Your task to perform on an android device: add a label to a message in the gmail app Image 0: 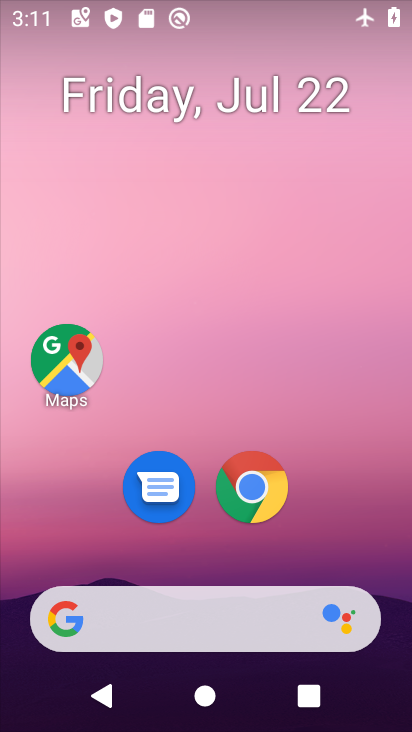
Step 0: drag from (107, 554) to (157, 53)
Your task to perform on an android device: add a label to a message in the gmail app Image 1: 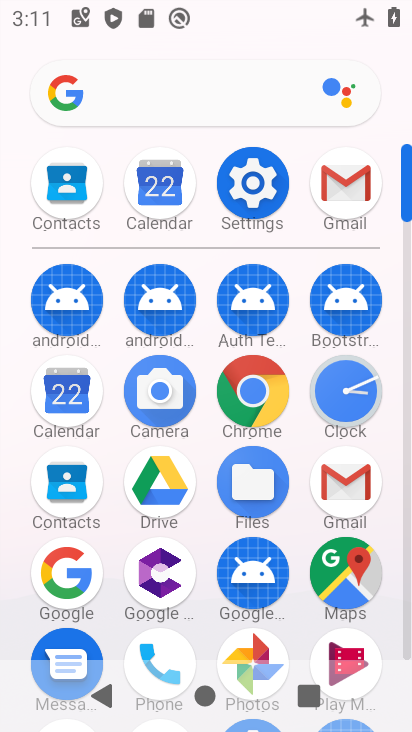
Step 1: click (338, 175)
Your task to perform on an android device: add a label to a message in the gmail app Image 2: 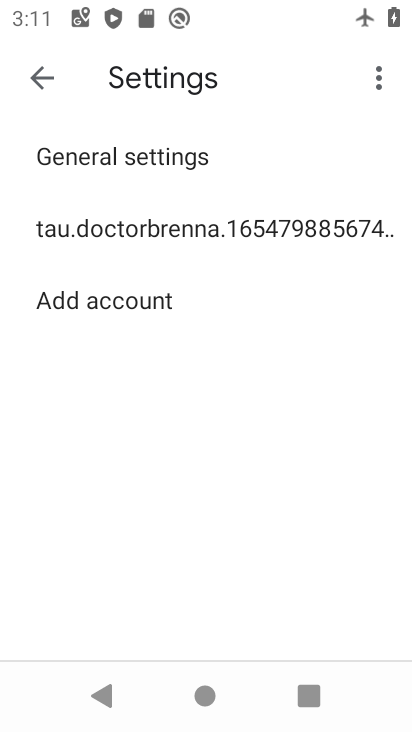
Step 2: task complete